Your task to perform on an android device: Go to wifi settings Image 0: 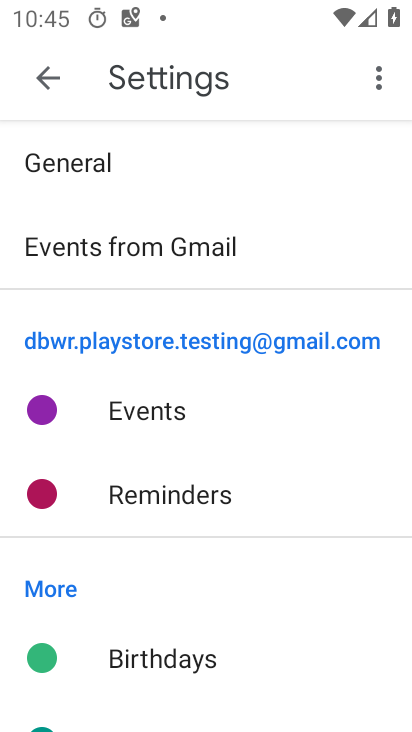
Step 0: press home button
Your task to perform on an android device: Go to wifi settings Image 1: 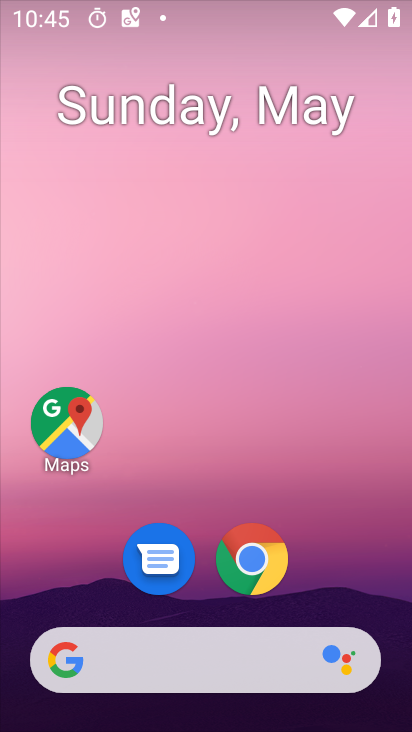
Step 1: drag from (302, 591) to (292, 114)
Your task to perform on an android device: Go to wifi settings Image 2: 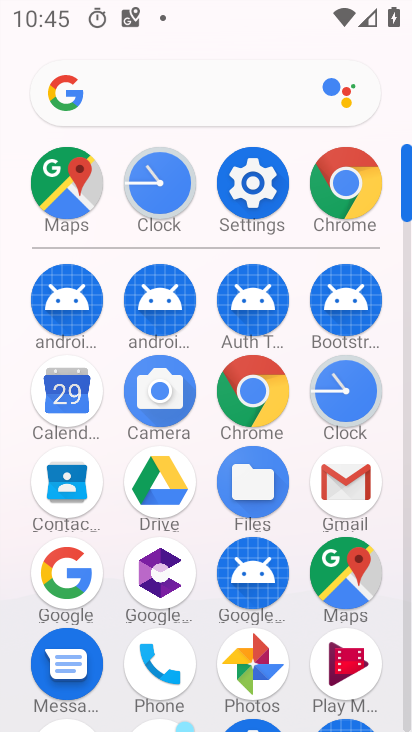
Step 2: click (256, 191)
Your task to perform on an android device: Go to wifi settings Image 3: 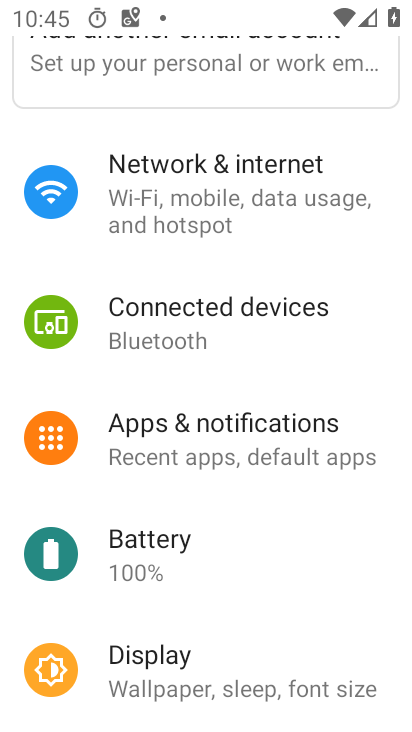
Step 3: click (256, 174)
Your task to perform on an android device: Go to wifi settings Image 4: 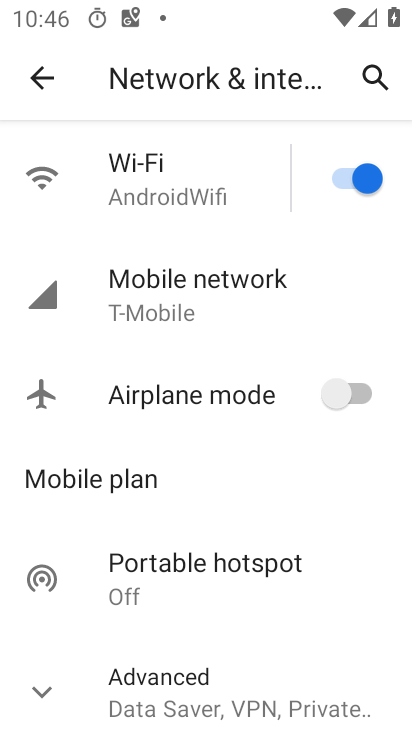
Step 4: task complete